Your task to perform on an android device: change the clock display to digital Image 0: 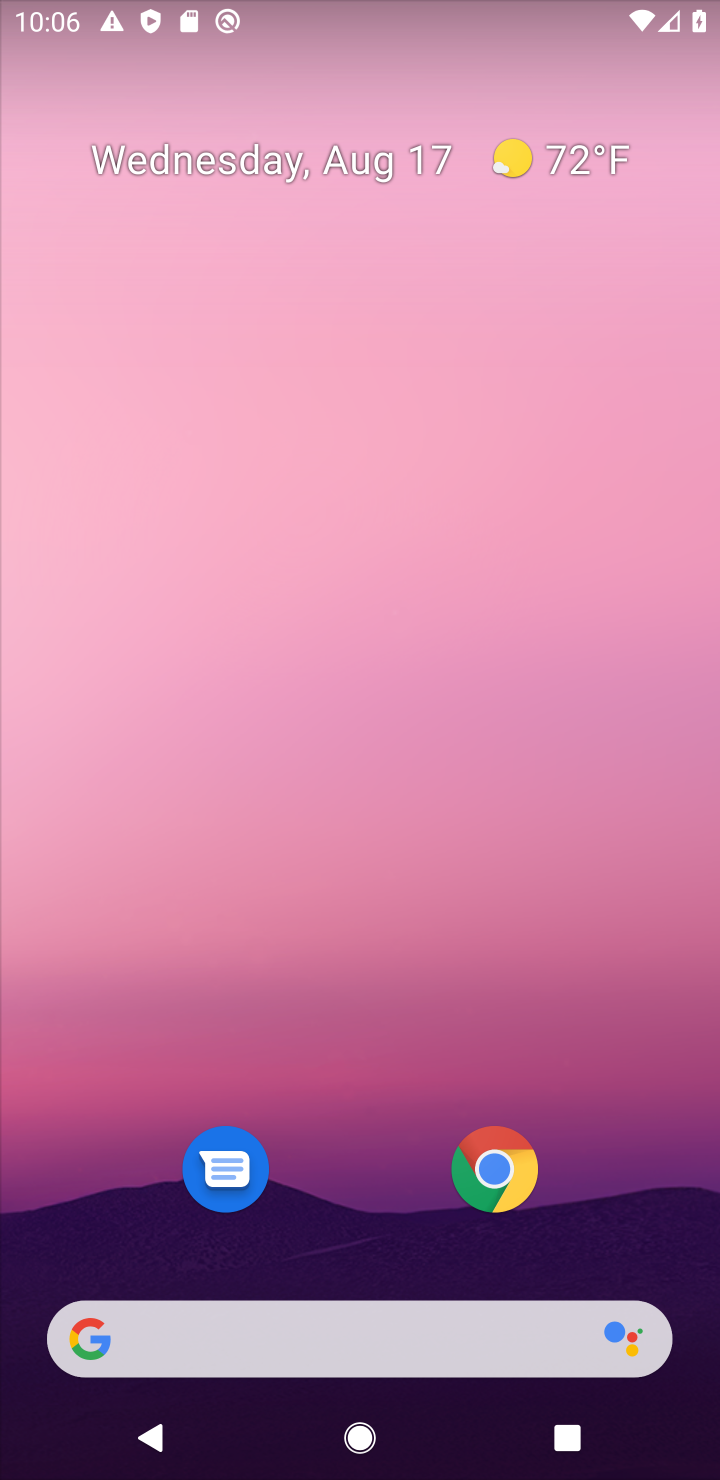
Step 0: drag from (383, 895) to (455, 275)
Your task to perform on an android device: change the clock display to digital Image 1: 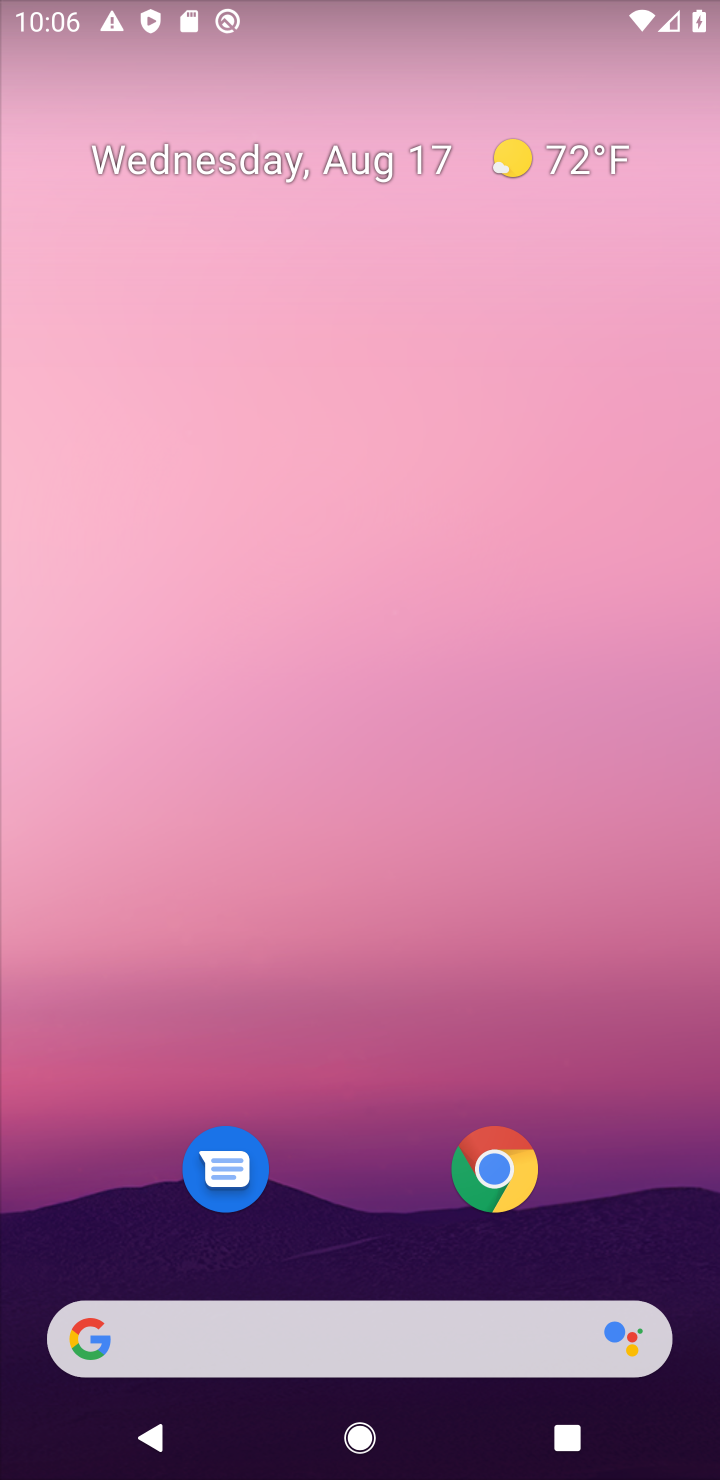
Step 1: task complete